Your task to perform on an android device: Do I have any events tomorrow? Image 0: 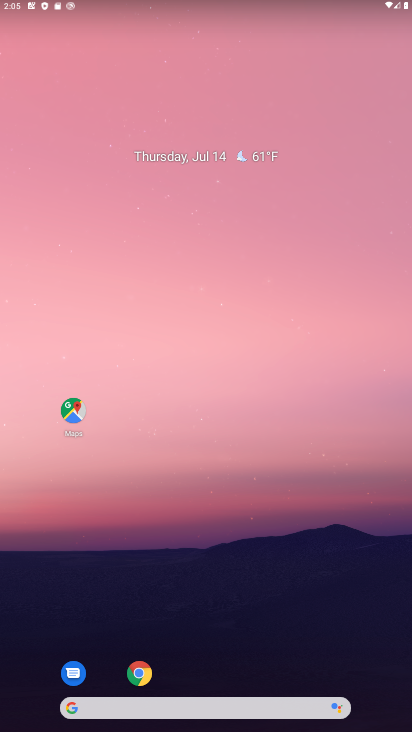
Step 0: drag from (180, 670) to (248, 2)
Your task to perform on an android device: Do I have any events tomorrow? Image 1: 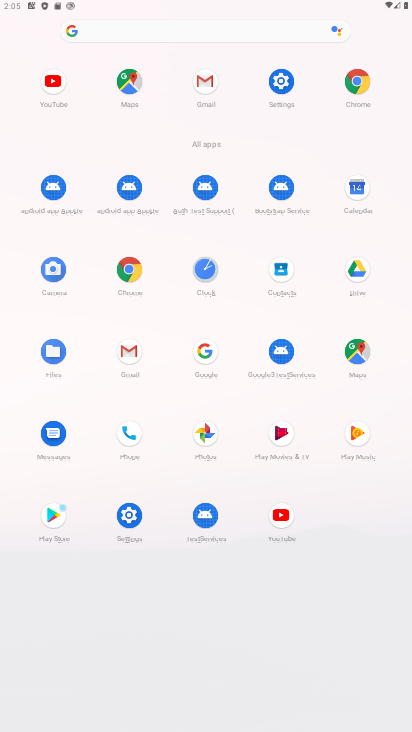
Step 1: click (359, 179)
Your task to perform on an android device: Do I have any events tomorrow? Image 2: 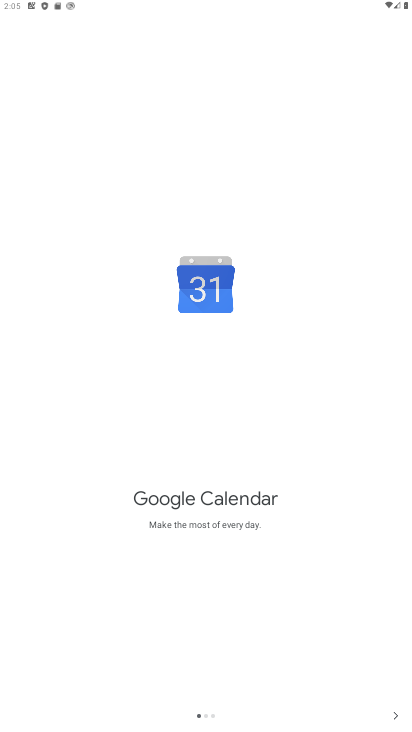
Step 2: click (397, 722)
Your task to perform on an android device: Do I have any events tomorrow? Image 3: 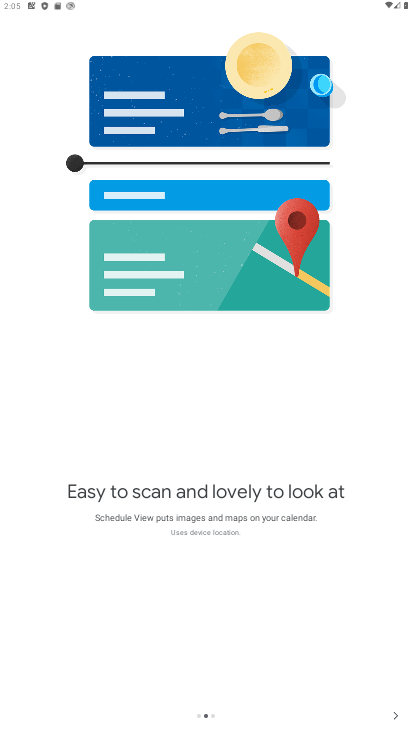
Step 3: click (397, 722)
Your task to perform on an android device: Do I have any events tomorrow? Image 4: 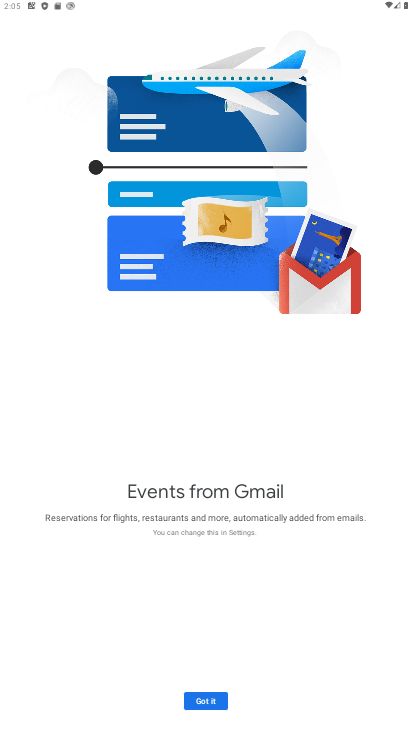
Step 4: click (208, 703)
Your task to perform on an android device: Do I have any events tomorrow? Image 5: 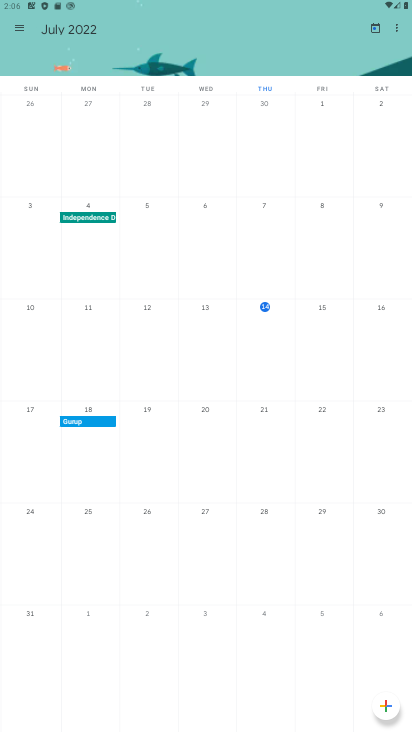
Step 5: click (26, 33)
Your task to perform on an android device: Do I have any events tomorrow? Image 6: 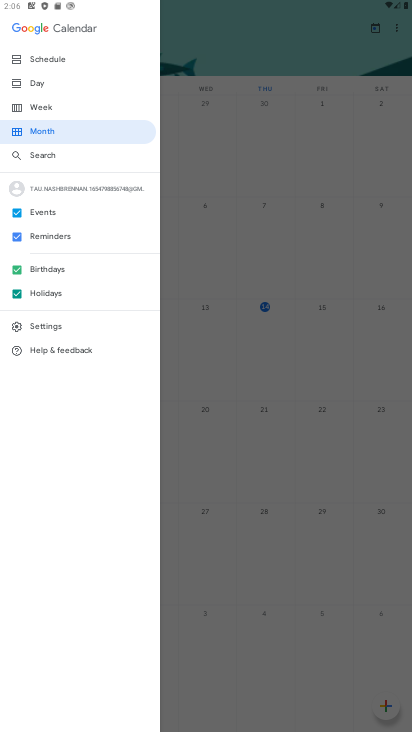
Step 6: click (21, 238)
Your task to perform on an android device: Do I have any events tomorrow? Image 7: 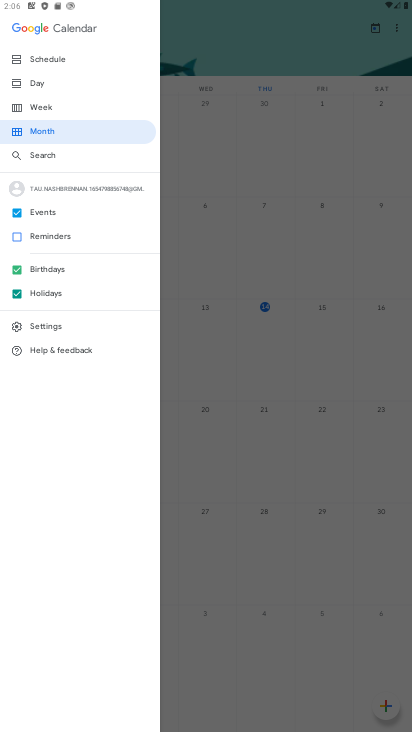
Step 7: click (14, 265)
Your task to perform on an android device: Do I have any events tomorrow? Image 8: 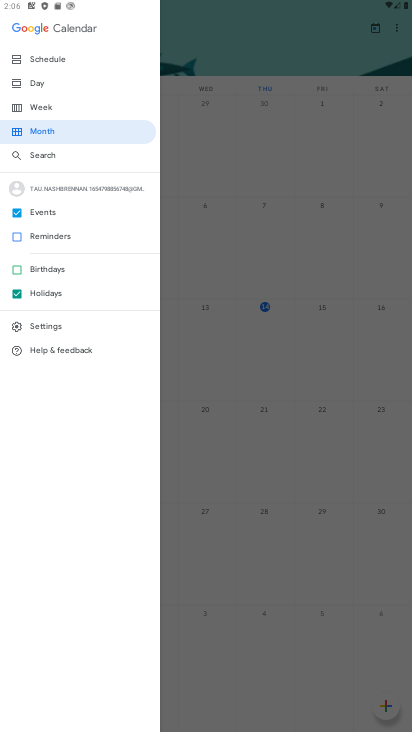
Step 8: click (18, 292)
Your task to perform on an android device: Do I have any events tomorrow? Image 9: 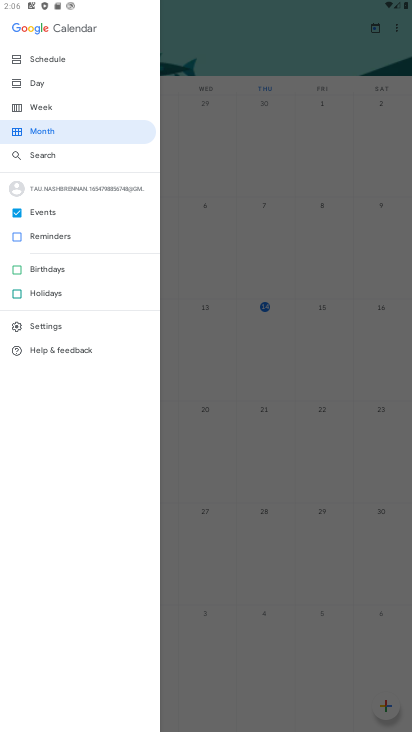
Step 9: click (24, 81)
Your task to perform on an android device: Do I have any events tomorrow? Image 10: 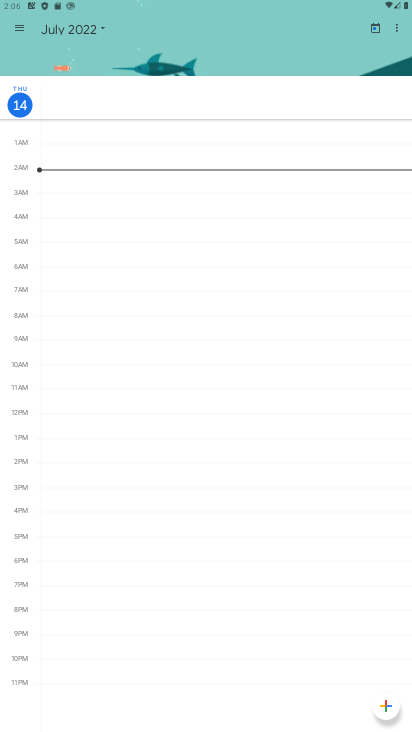
Step 10: click (92, 19)
Your task to perform on an android device: Do I have any events tomorrow? Image 11: 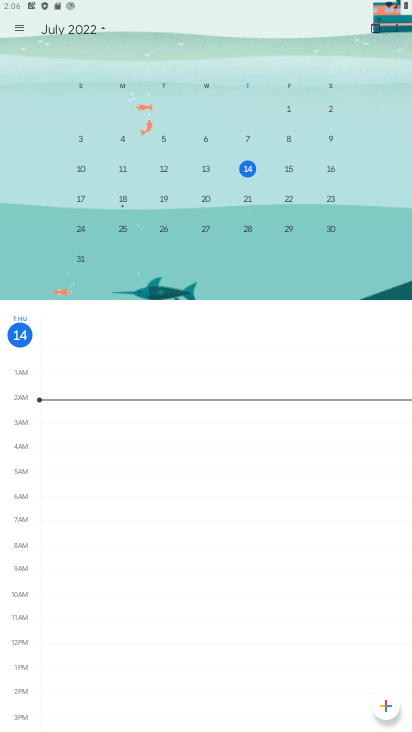
Step 11: click (296, 172)
Your task to perform on an android device: Do I have any events tomorrow? Image 12: 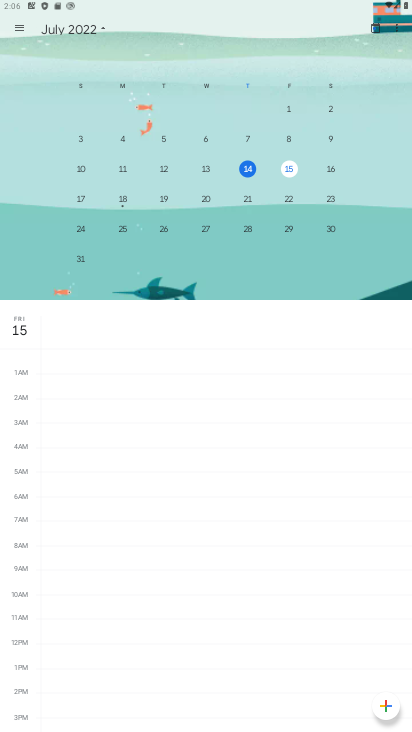
Step 12: task complete